Your task to perform on an android device: When is my next meeting? Image 0: 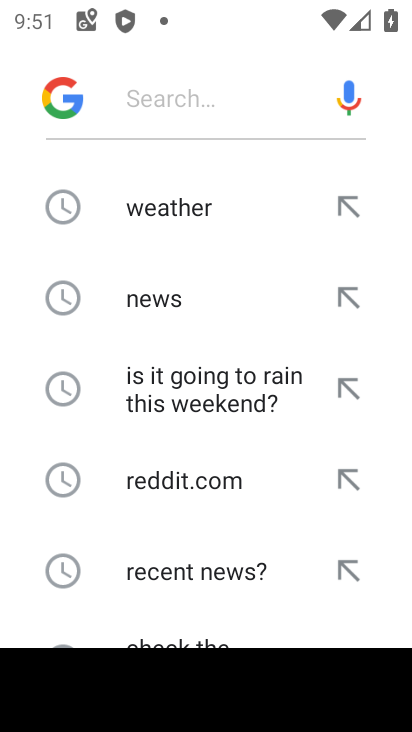
Step 0: press home button
Your task to perform on an android device: When is my next meeting? Image 1: 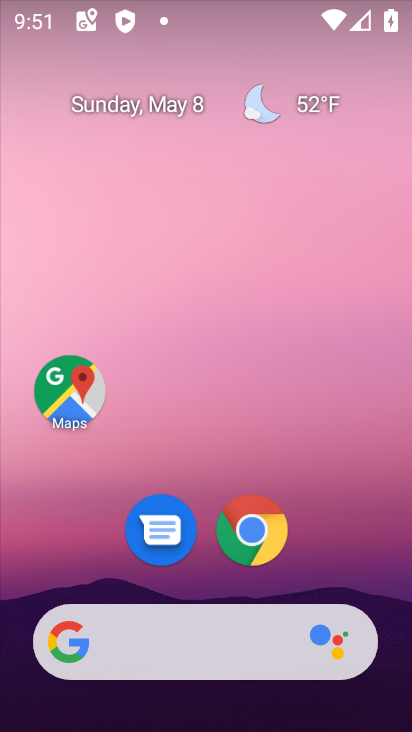
Step 1: drag from (374, 530) to (371, 207)
Your task to perform on an android device: When is my next meeting? Image 2: 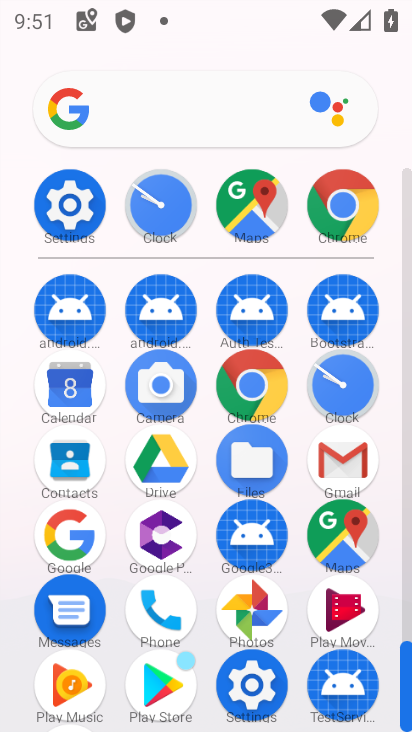
Step 2: click (76, 398)
Your task to perform on an android device: When is my next meeting? Image 3: 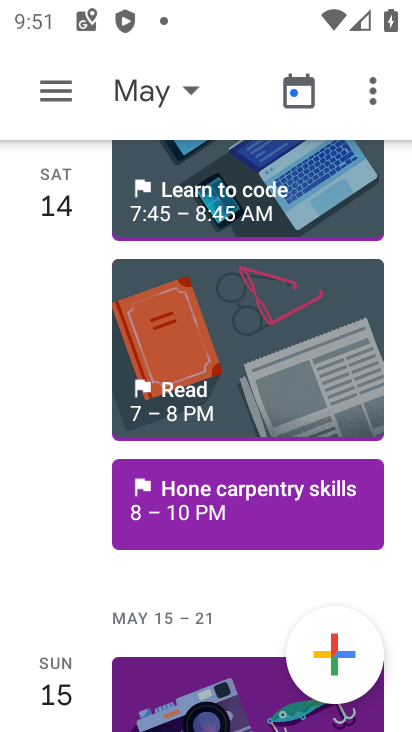
Step 3: drag from (96, 609) to (51, 354)
Your task to perform on an android device: When is my next meeting? Image 4: 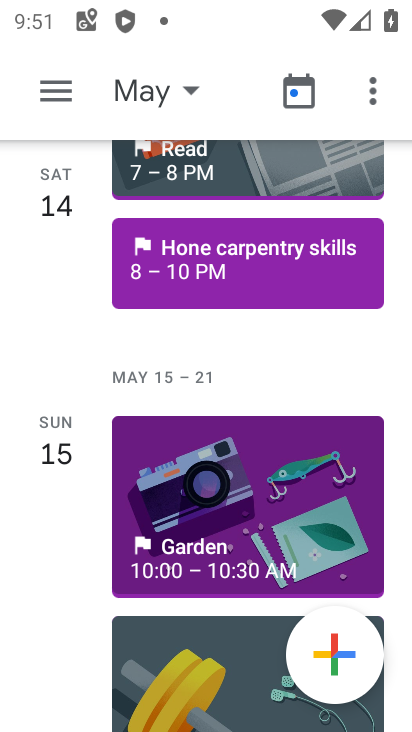
Step 4: drag from (53, 629) to (50, 385)
Your task to perform on an android device: When is my next meeting? Image 5: 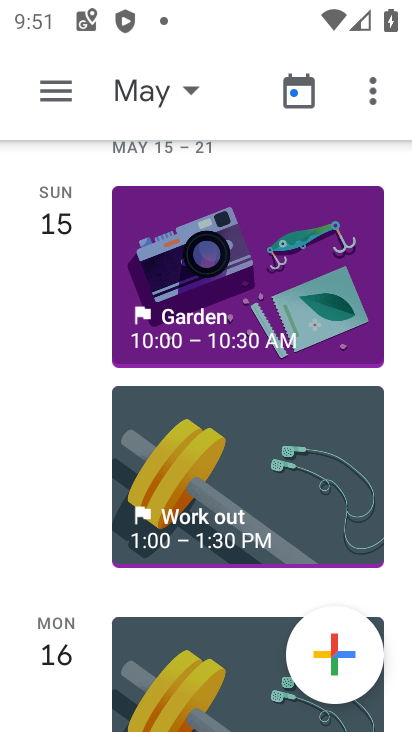
Step 5: drag from (91, 688) to (81, 497)
Your task to perform on an android device: When is my next meeting? Image 6: 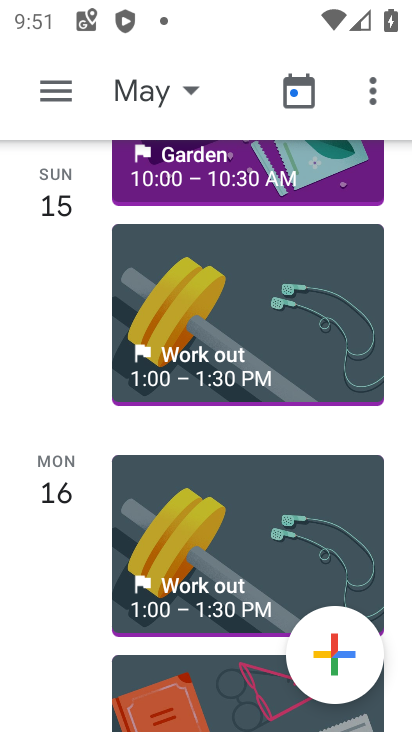
Step 6: drag from (87, 667) to (88, 381)
Your task to perform on an android device: When is my next meeting? Image 7: 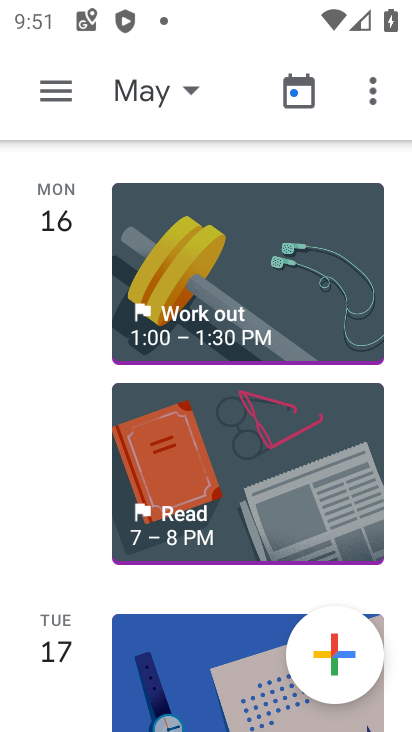
Step 7: drag from (78, 642) to (79, 342)
Your task to perform on an android device: When is my next meeting? Image 8: 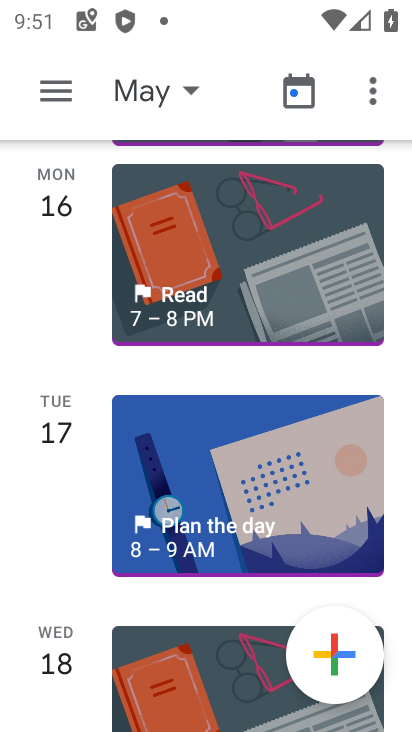
Step 8: drag from (43, 705) to (52, 342)
Your task to perform on an android device: When is my next meeting? Image 9: 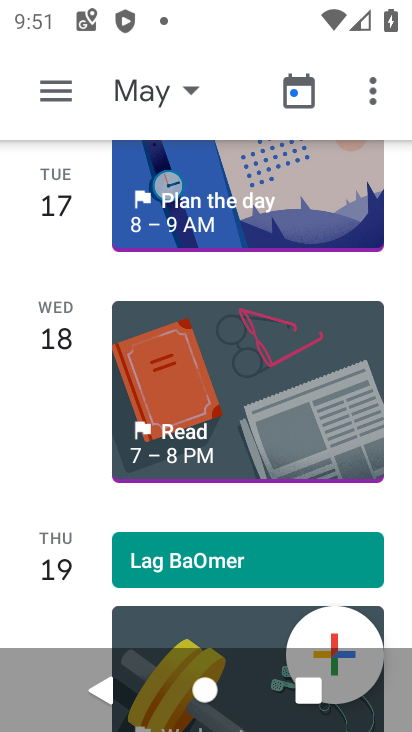
Step 9: drag from (33, 707) to (76, 328)
Your task to perform on an android device: When is my next meeting? Image 10: 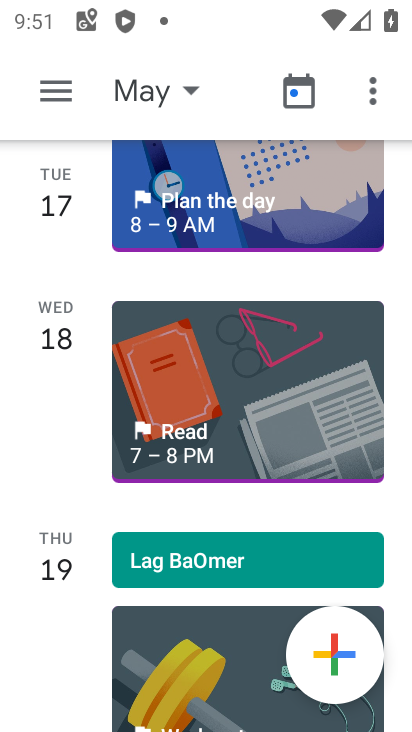
Step 10: drag from (56, 646) to (100, 209)
Your task to perform on an android device: When is my next meeting? Image 11: 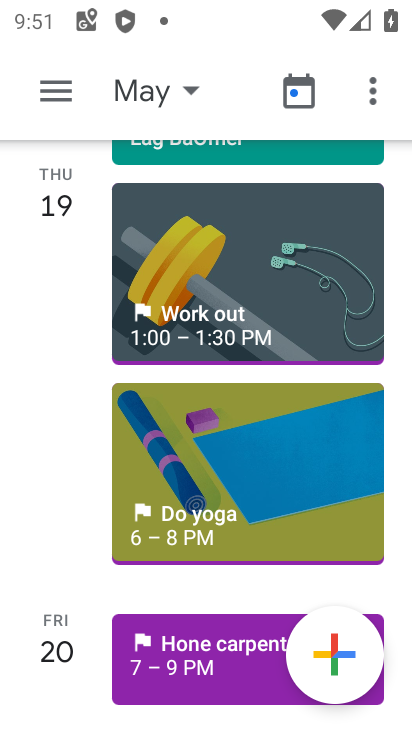
Step 11: drag from (50, 648) to (87, 209)
Your task to perform on an android device: When is my next meeting? Image 12: 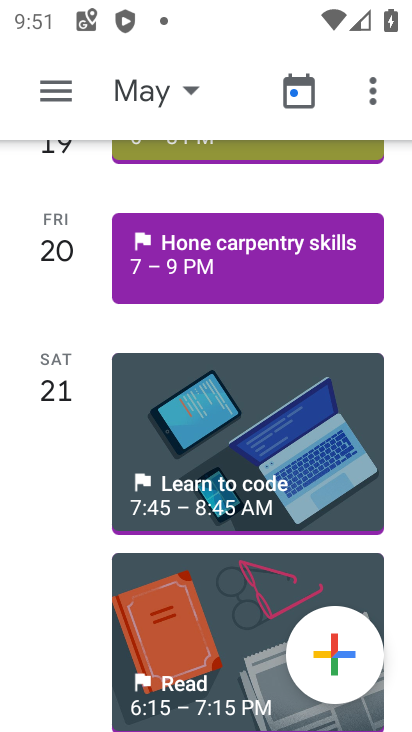
Step 12: drag from (66, 636) to (77, 246)
Your task to perform on an android device: When is my next meeting? Image 13: 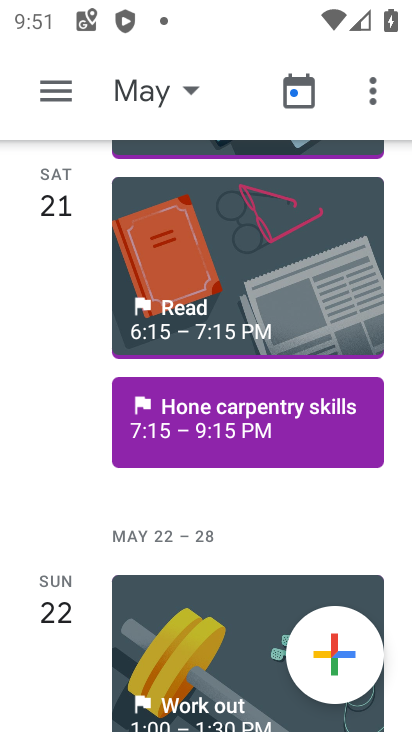
Step 13: drag from (70, 666) to (71, 244)
Your task to perform on an android device: When is my next meeting? Image 14: 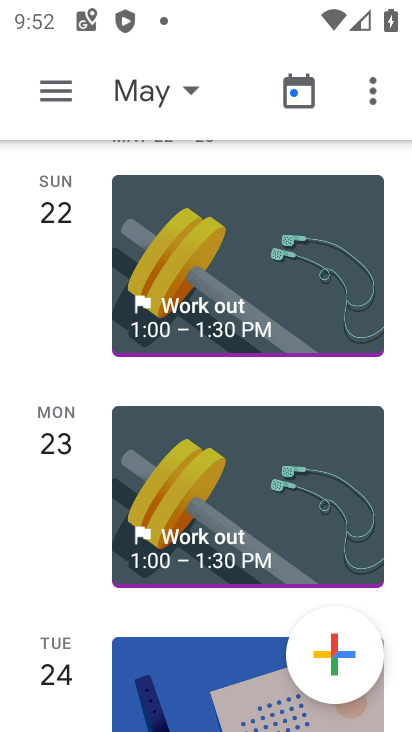
Step 14: drag from (50, 690) to (75, 264)
Your task to perform on an android device: When is my next meeting? Image 15: 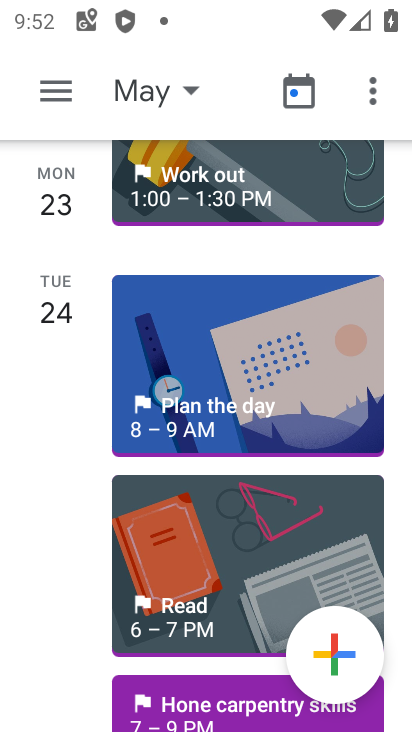
Step 15: drag from (57, 677) to (91, 255)
Your task to perform on an android device: When is my next meeting? Image 16: 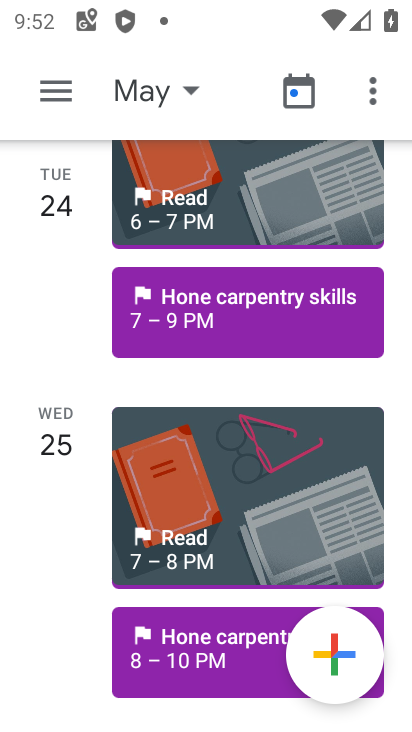
Step 16: drag from (45, 595) to (44, 239)
Your task to perform on an android device: When is my next meeting? Image 17: 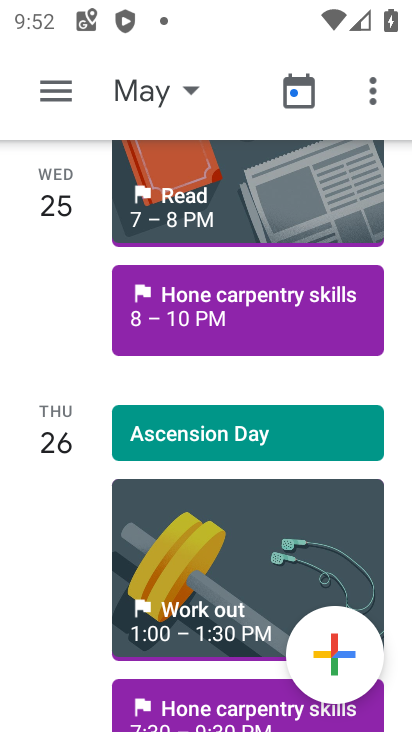
Step 17: drag from (60, 594) to (52, 207)
Your task to perform on an android device: When is my next meeting? Image 18: 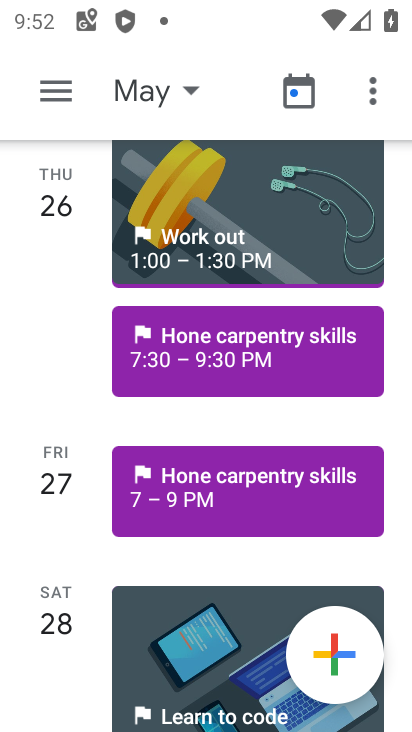
Step 18: drag from (51, 606) to (95, 221)
Your task to perform on an android device: When is my next meeting? Image 19: 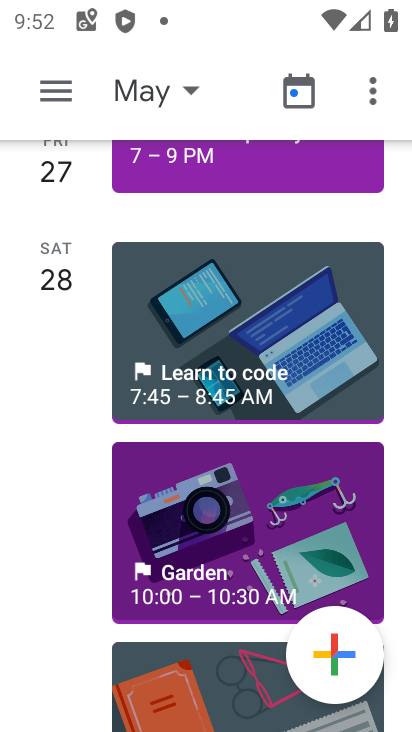
Step 19: drag from (46, 601) to (55, 247)
Your task to perform on an android device: When is my next meeting? Image 20: 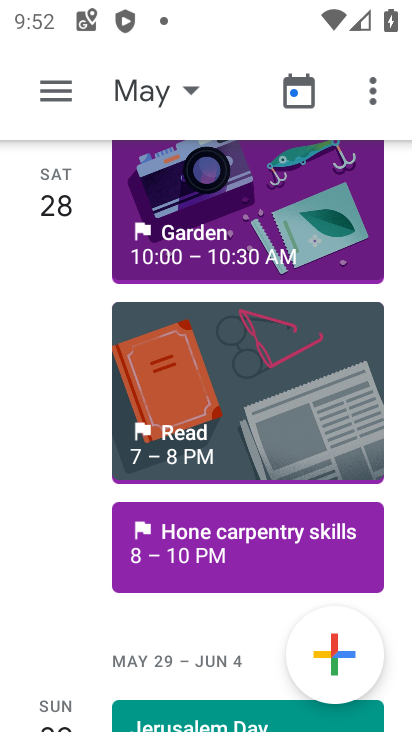
Step 20: drag from (38, 676) to (99, 321)
Your task to perform on an android device: When is my next meeting? Image 21: 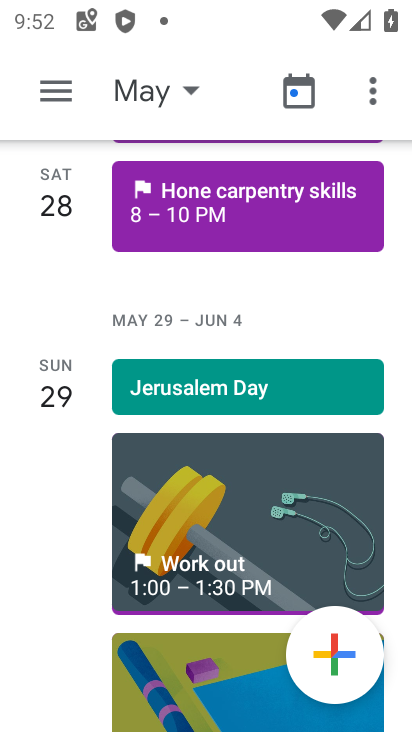
Step 21: drag from (69, 639) to (66, 247)
Your task to perform on an android device: When is my next meeting? Image 22: 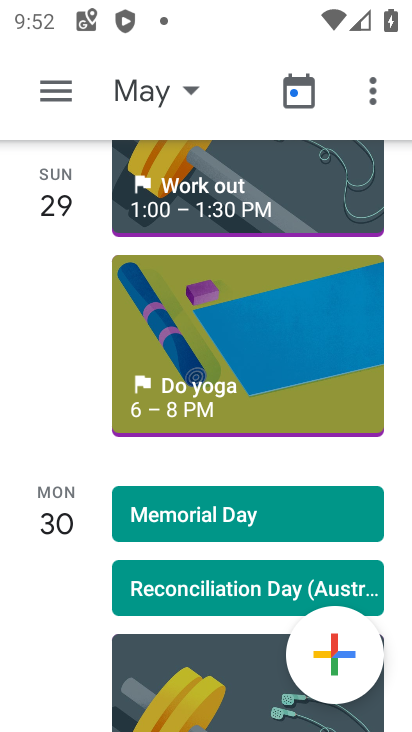
Step 22: drag from (65, 658) to (78, 265)
Your task to perform on an android device: When is my next meeting? Image 23: 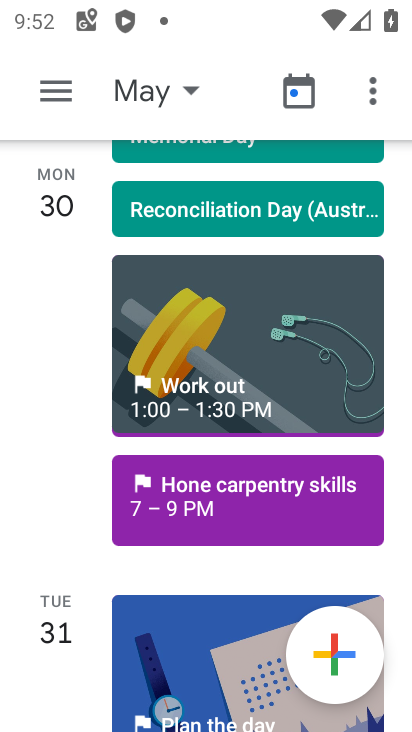
Step 23: drag from (48, 696) to (101, 256)
Your task to perform on an android device: When is my next meeting? Image 24: 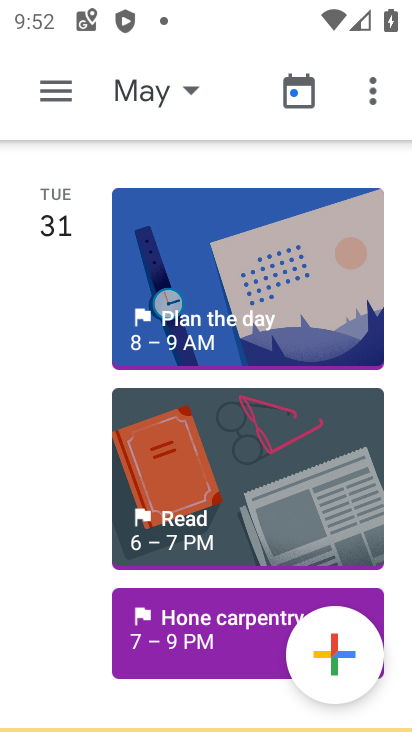
Step 24: drag from (63, 623) to (99, 236)
Your task to perform on an android device: When is my next meeting? Image 25: 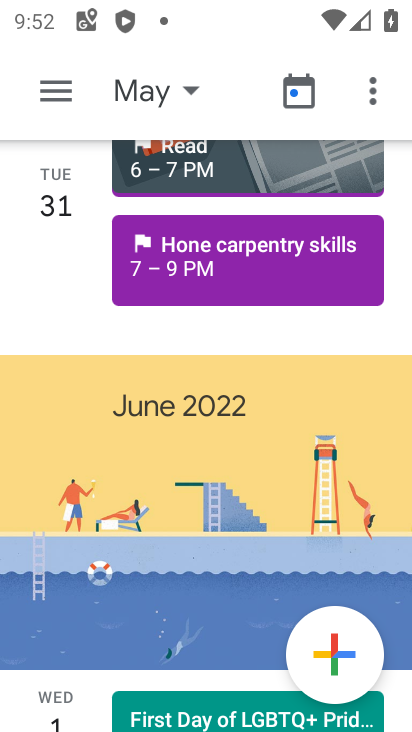
Step 25: click (160, 90)
Your task to perform on an android device: When is my next meeting? Image 26: 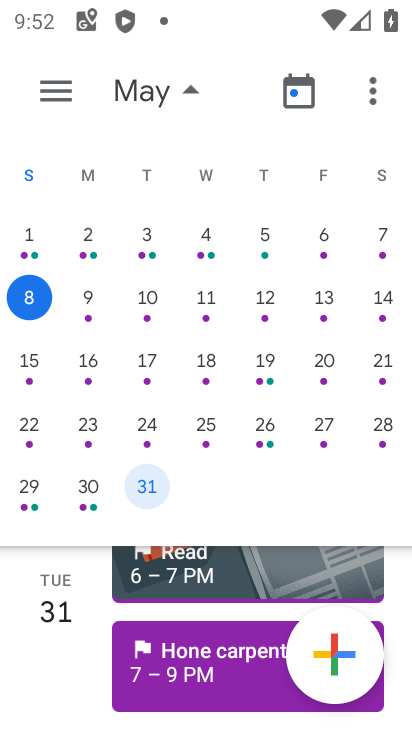
Step 26: click (31, 305)
Your task to perform on an android device: When is my next meeting? Image 27: 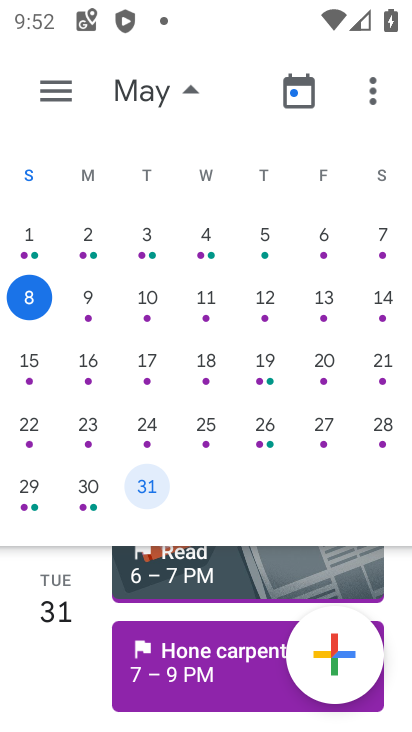
Step 27: click (92, 294)
Your task to perform on an android device: When is my next meeting? Image 28: 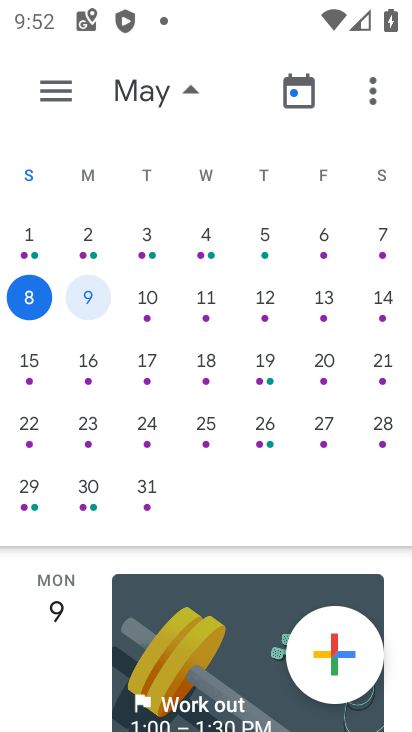
Step 28: drag from (51, 705) to (85, 481)
Your task to perform on an android device: When is my next meeting? Image 29: 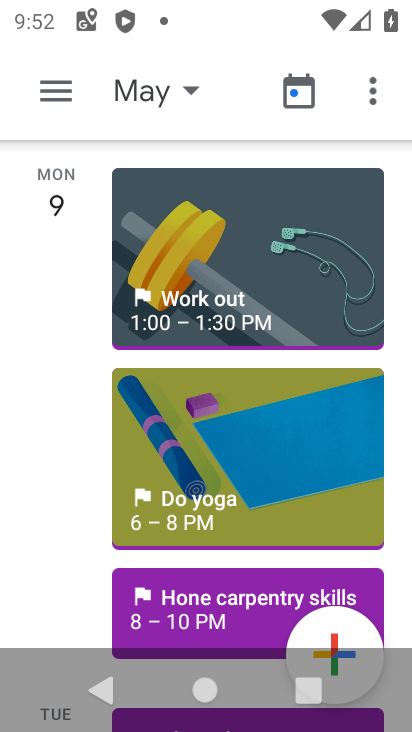
Step 29: drag from (35, 560) to (53, 226)
Your task to perform on an android device: When is my next meeting? Image 30: 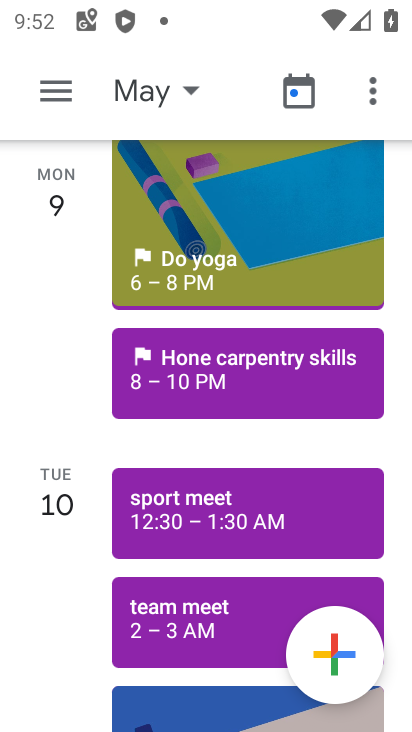
Step 30: click (151, 625)
Your task to perform on an android device: When is my next meeting? Image 31: 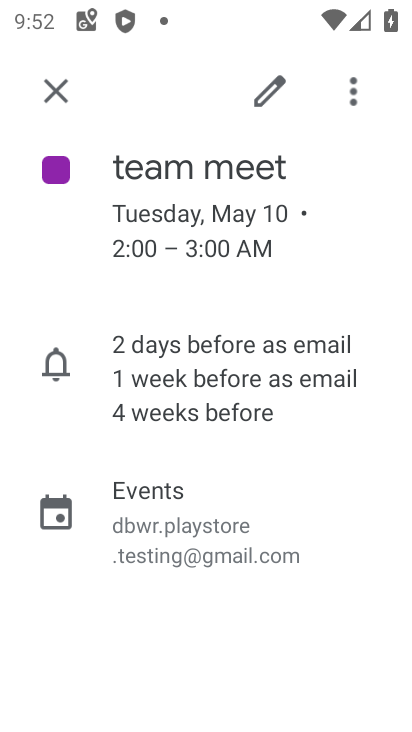
Step 31: task complete